Your task to perform on an android device: Go to Maps Image 0: 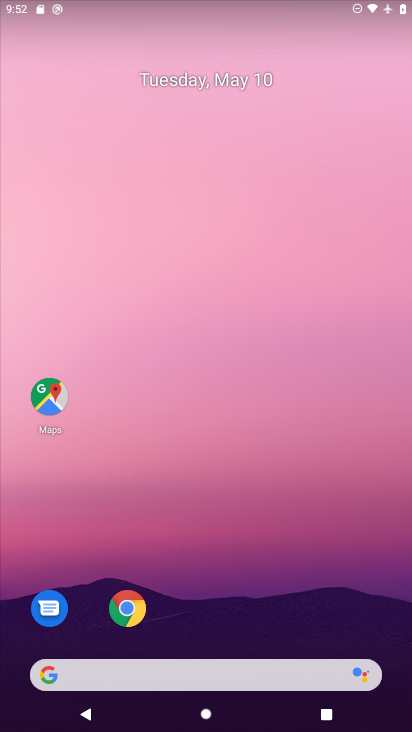
Step 0: drag from (212, 601) to (227, 446)
Your task to perform on an android device: Go to Maps Image 1: 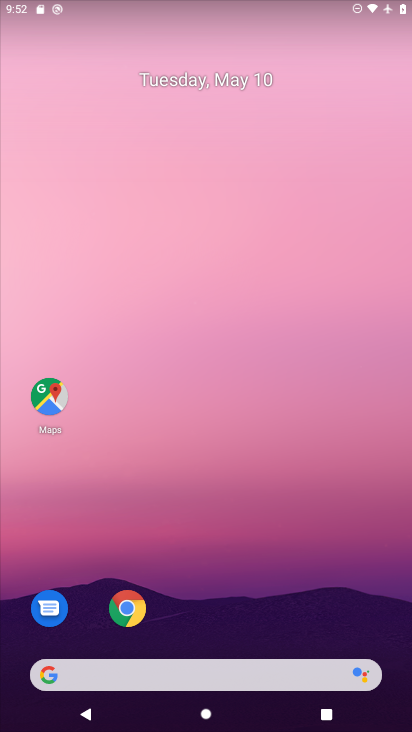
Step 1: drag from (221, 630) to (245, 271)
Your task to perform on an android device: Go to Maps Image 2: 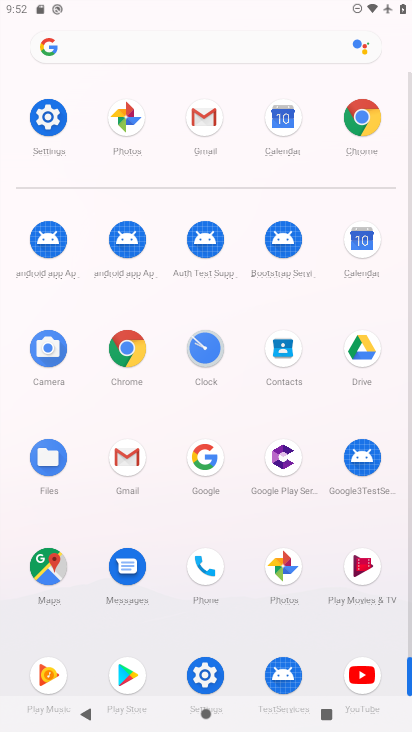
Step 2: click (51, 566)
Your task to perform on an android device: Go to Maps Image 3: 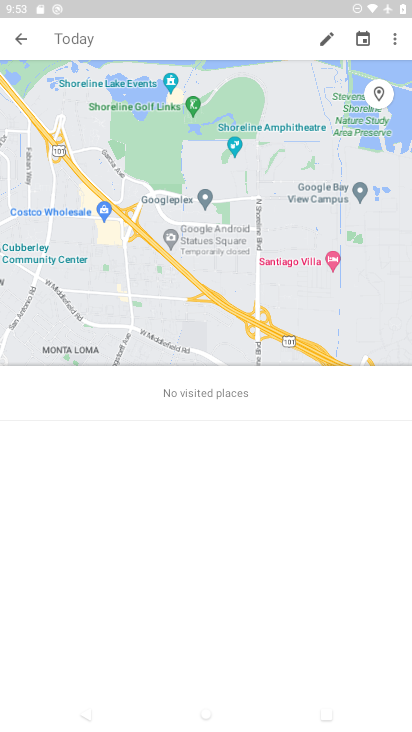
Step 3: task complete